Your task to perform on an android device: toggle improve location accuracy Image 0: 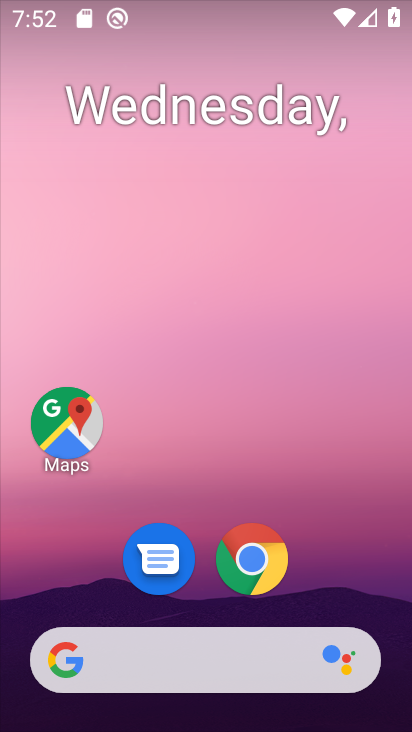
Step 0: drag from (372, 563) to (405, 151)
Your task to perform on an android device: toggle improve location accuracy Image 1: 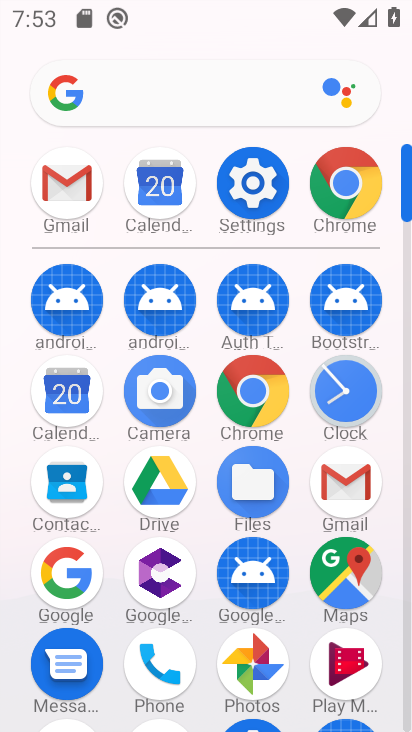
Step 1: click (238, 202)
Your task to perform on an android device: toggle improve location accuracy Image 2: 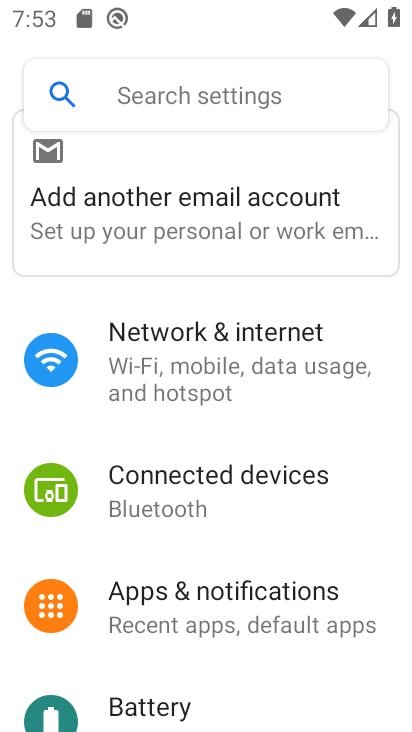
Step 2: drag from (330, 651) to (346, 207)
Your task to perform on an android device: toggle improve location accuracy Image 3: 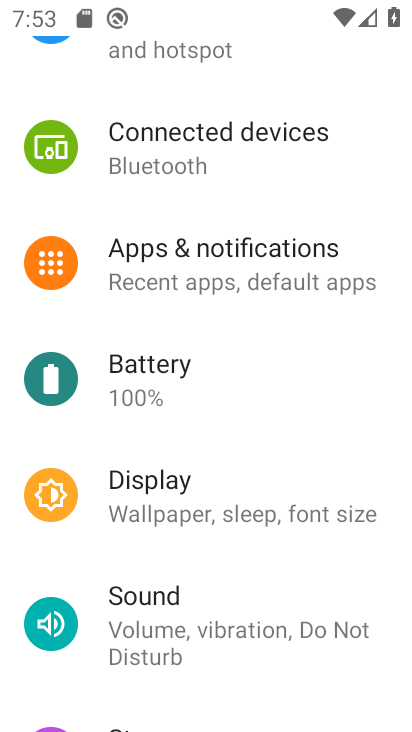
Step 3: drag from (273, 602) to (324, 138)
Your task to perform on an android device: toggle improve location accuracy Image 4: 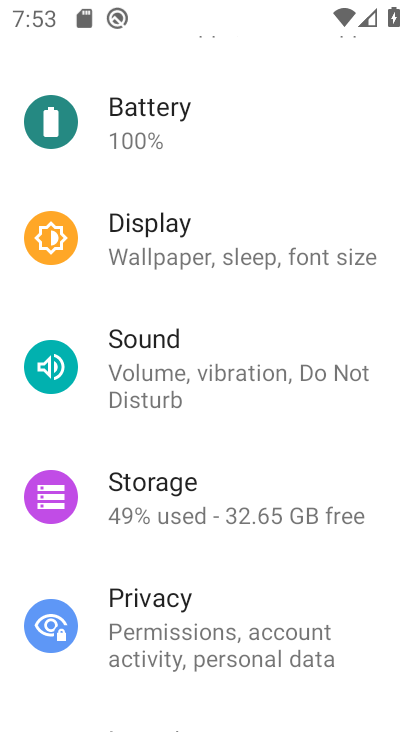
Step 4: drag from (255, 482) to (273, 259)
Your task to perform on an android device: toggle improve location accuracy Image 5: 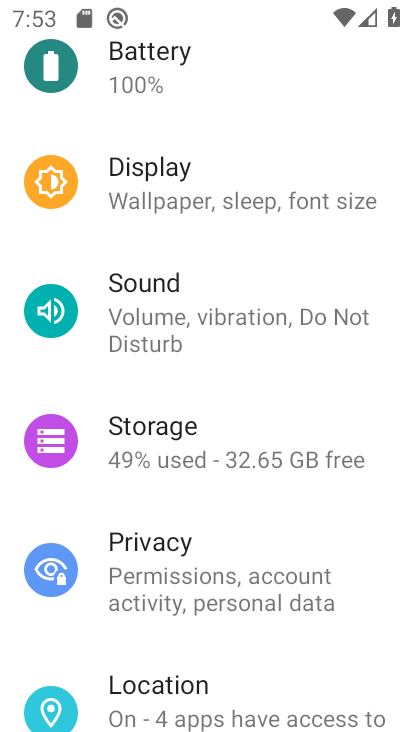
Step 5: click (179, 707)
Your task to perform on an android device: toggle improve location accuracy Image 6: 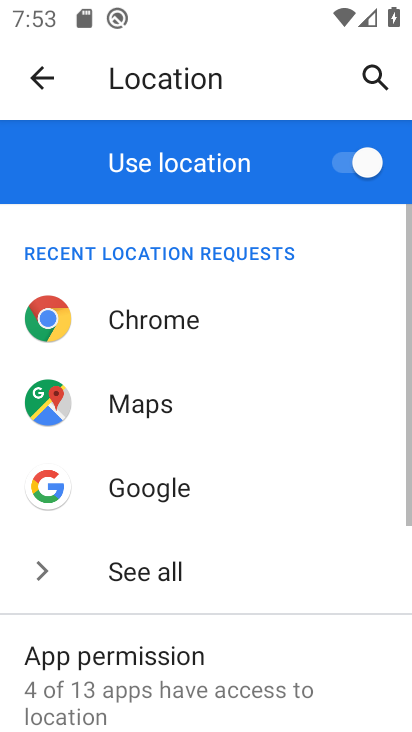
Step 6: drag from (323, 647) to (336, 94)
Your task to perform on an android device: toggle improve location accuracy Image 7: 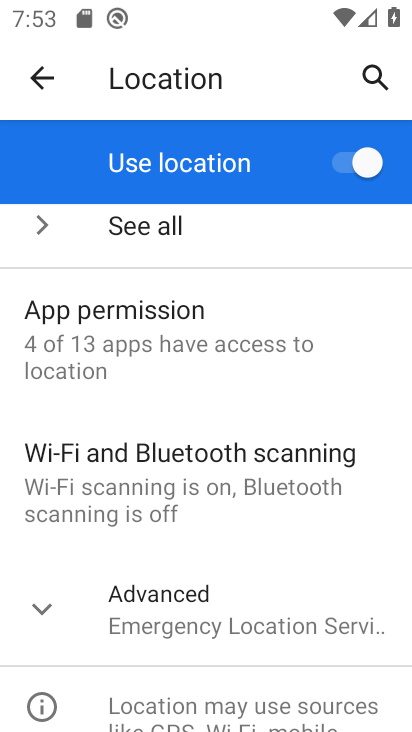
Step 7: click (237, 621)
Your task to perform on an android device: toggle improve location accuracy Image 8: 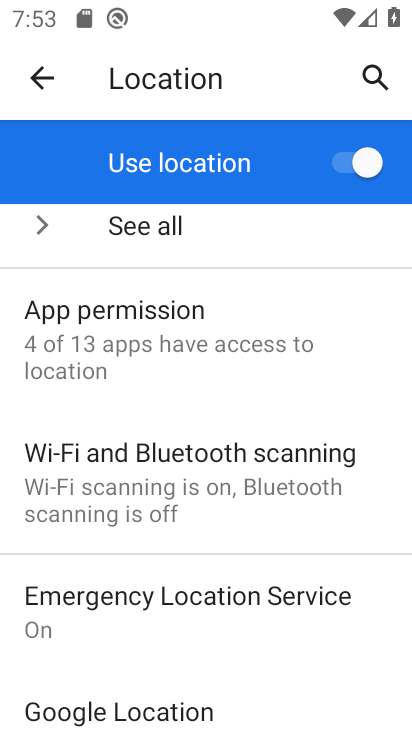
Step 8: drag from (297, 660) to (305, 316)
Your task to perform on an android device: toggle improve location accuracy Image 9: 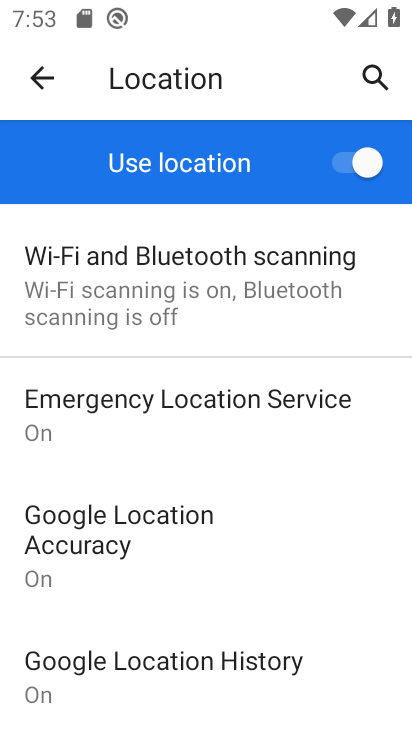
Step 9: drag from (207, 623) to (242, 344)
Your task to perform on an android device: toggle improve location accuracy Image 10: 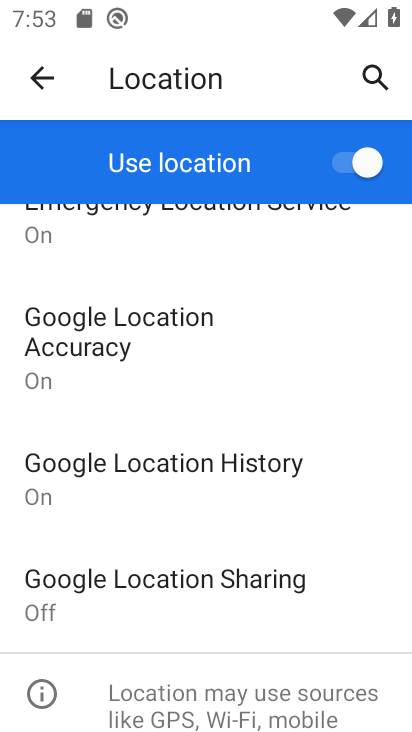
Step 10: click (120, 329)
Your task to perform on an android device: toggle improve location accuracy Image 11: 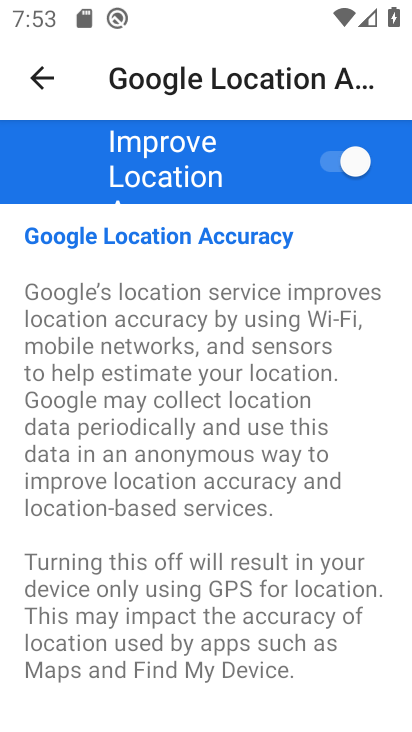
Step 11: click (319, 164)
Your task to perform on an android device: toggle improve location accuracy Image 12: 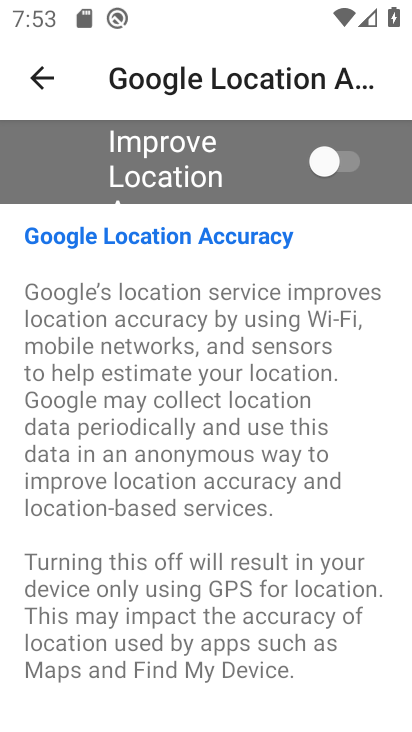
Step 12: task complete